Your task to perform on an android device: find snoozed emails in the gmail app Image 0: 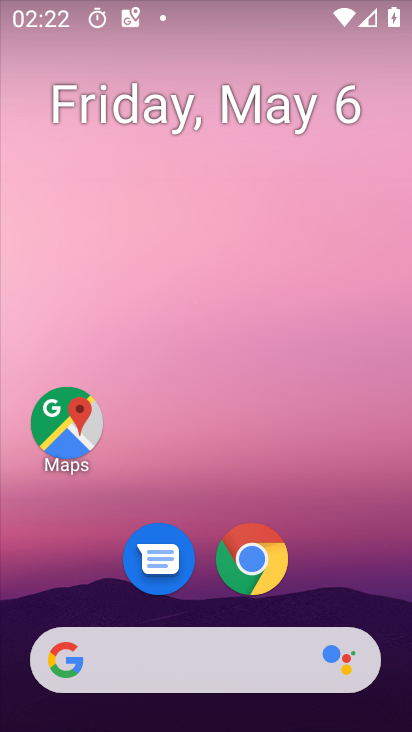
Step 0: drag from (337, 596) to (334, 32)
Your task to perform on an android device: find snoozed emails in the gmail app Image 1: 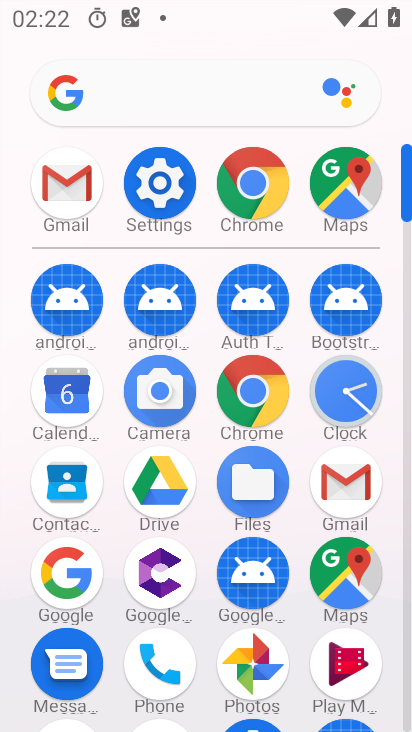
Step 1: click (348, 474)
Your task to perform on an android device: find snoozed emails in the gmail app Image 2: 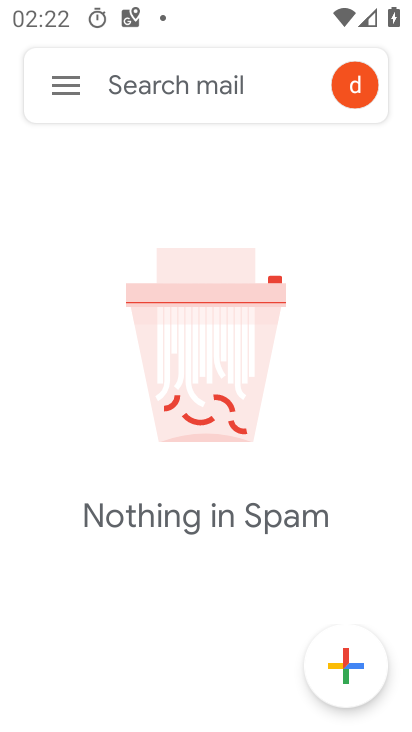
Step 2: click (60, 83)
Your task to perform on an android device: find snoozed emails in the gmail app Image 3: 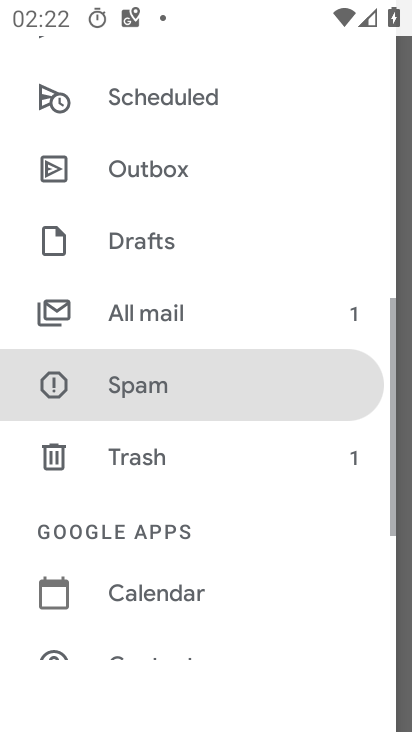
Step 3: drag from (160, 204) to (212, 668)
Your task to perform on an android device: find snoozed emails in the gmail app Image 4: 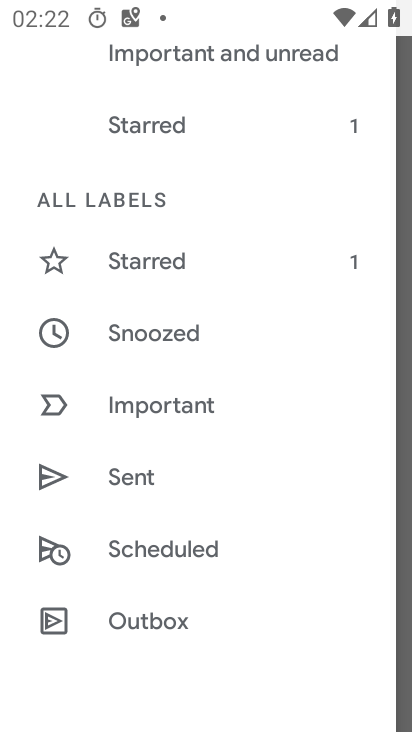
Step 4: drag from (171, 123) to (230, 596)
Your task to perform on an android device: find snoozed emails in the gmail app Image 5: 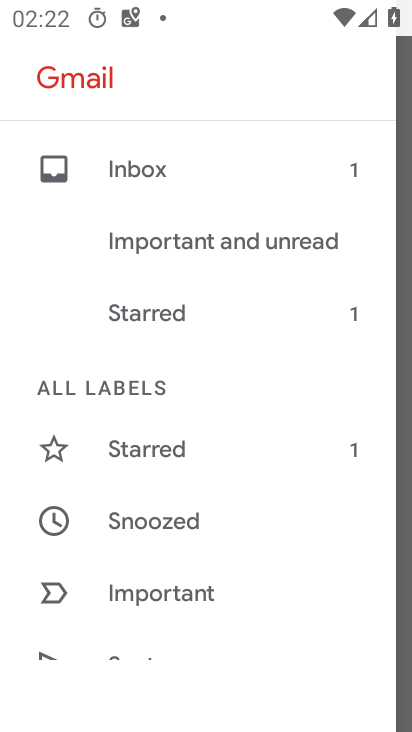
Step 5: click (163, 160)
Your task to perform on an android device: find snoozed emails in the gmail app Image 6: 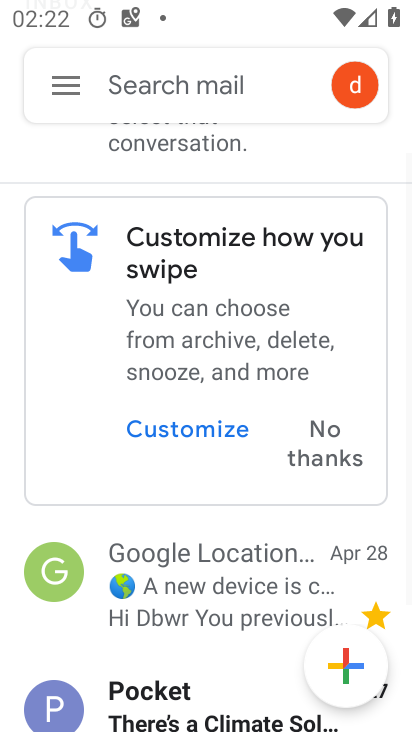
Step 6: drag from (250, 652) to (250, 92)
Your task to perform on an android device: find snoozed emails in the gmail app Image 7: 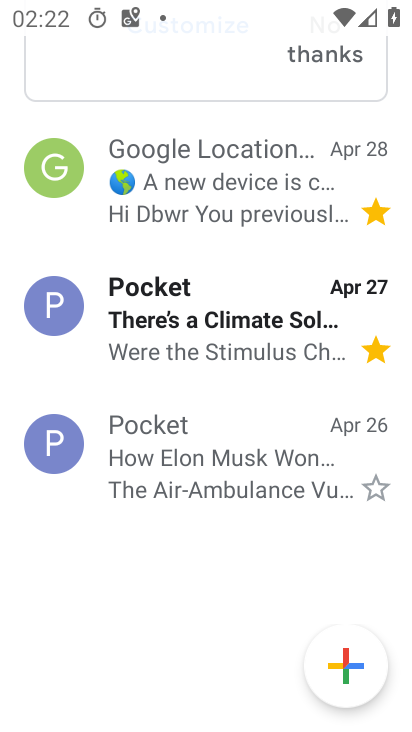
Step 7: click (218, 170)
Your task to perform on an android device: find snoozed emails in the gmail app Image 8: 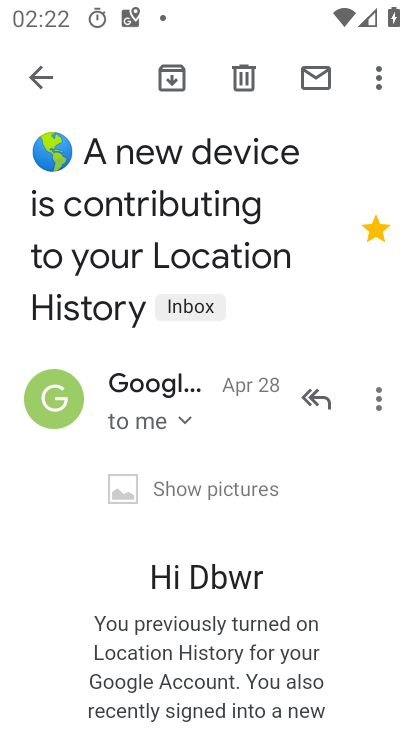
Step 8: click (374, 72)
Your task to perform on an android device: find snoozed emails in the gmail app Image 9: 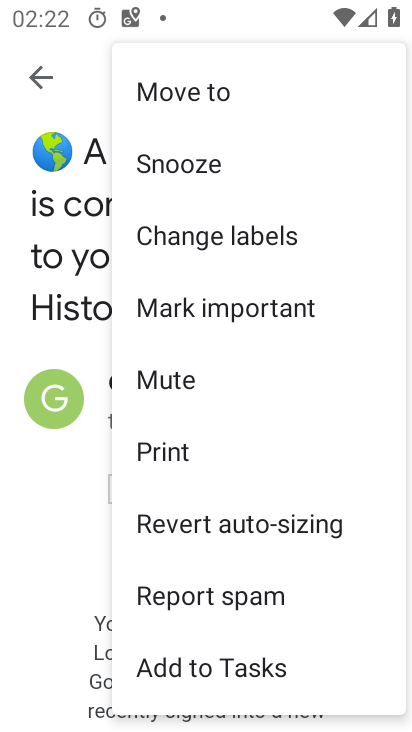
Step 9: click (195, 164)
Your task to perform on an android device: find snoozed emails in the gmail app Image 10: 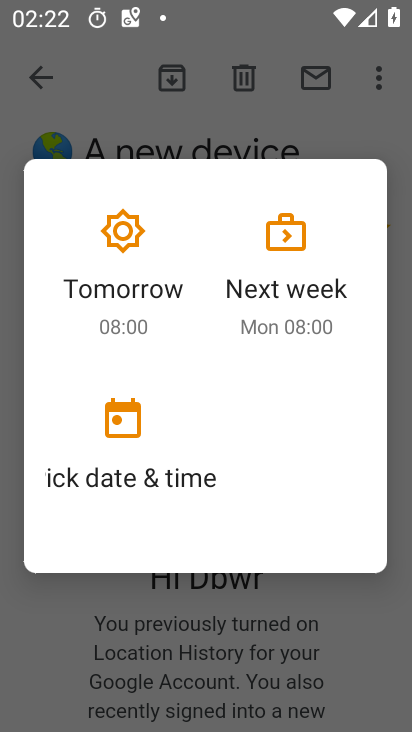
Step 10: click (303, 254)
Your task to perform on an android device: find snoozed emails in the gmail app Image 11: 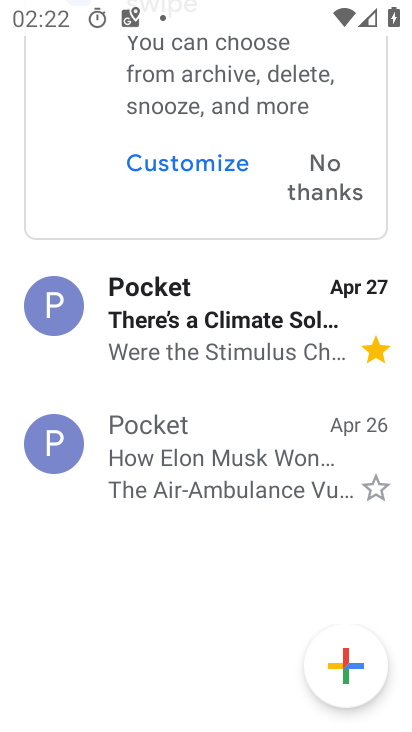
Step 11: task complete